Your task to perform on an android device: Open the stopwatch Image 0: 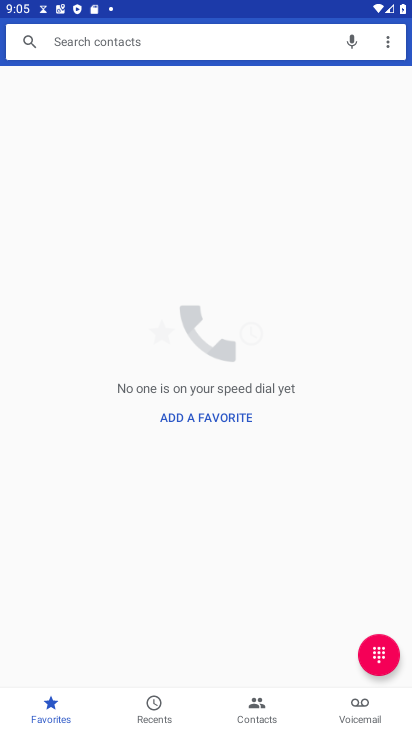
Step 0: press back button
Your task to perform on an android device: Open the stopwatch Image 1: 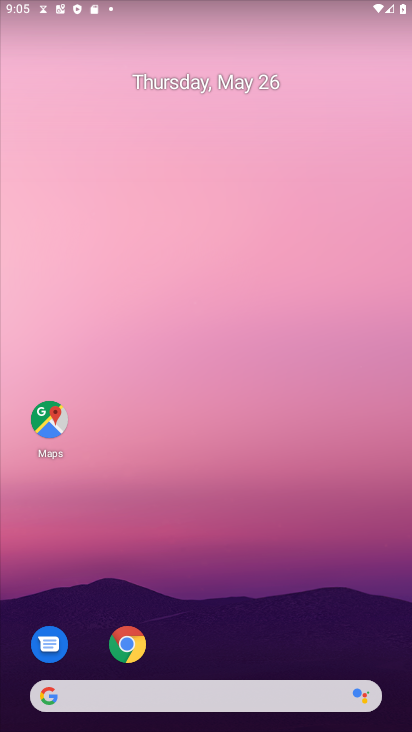
Step 1: drag from (208, 617) to (277, 55)
Your task to perform on an android device: Open the stopwatch Image 2: 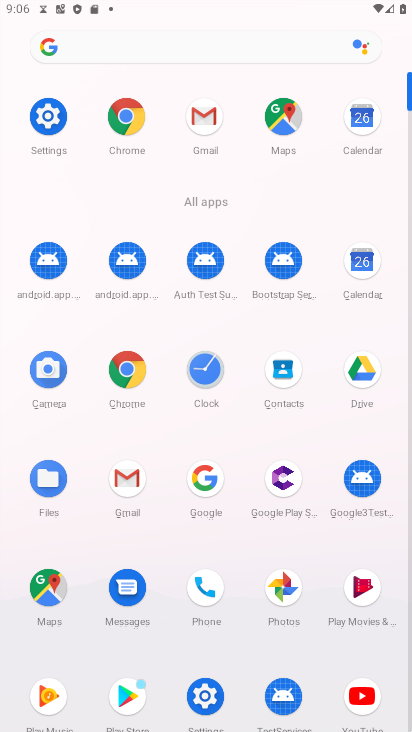
Step 2: click (199, 374)
Your task to perform on an android device: Open the stopwatch Image 3: 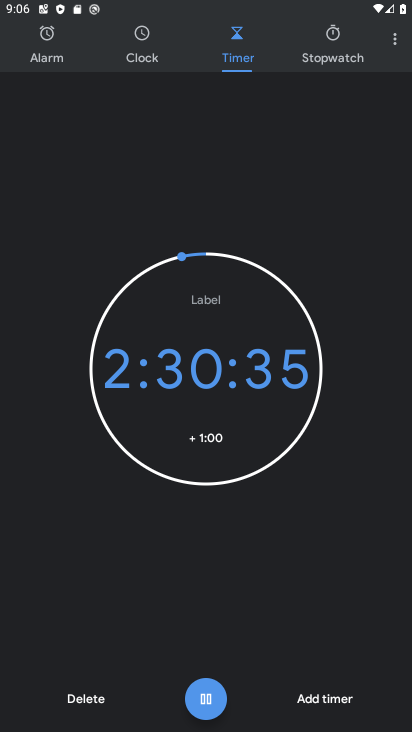
Step 3: click (340, 46)
Your task to perform on an android device: Open the stopwatch Image 4: 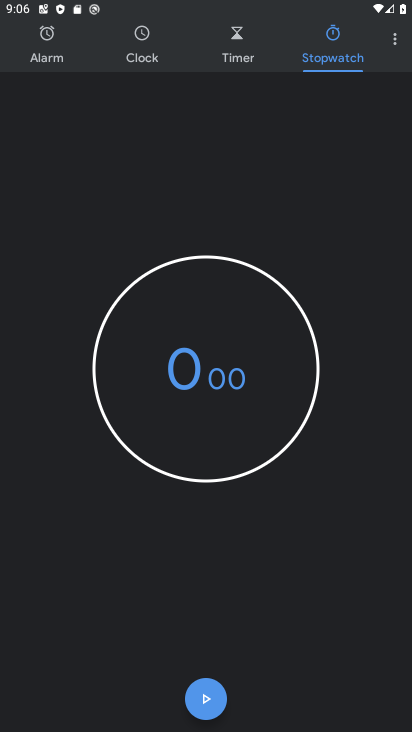
Step 4: task complete